Your task to perform on an android device: clear all cookies in the chrome app Image 0: 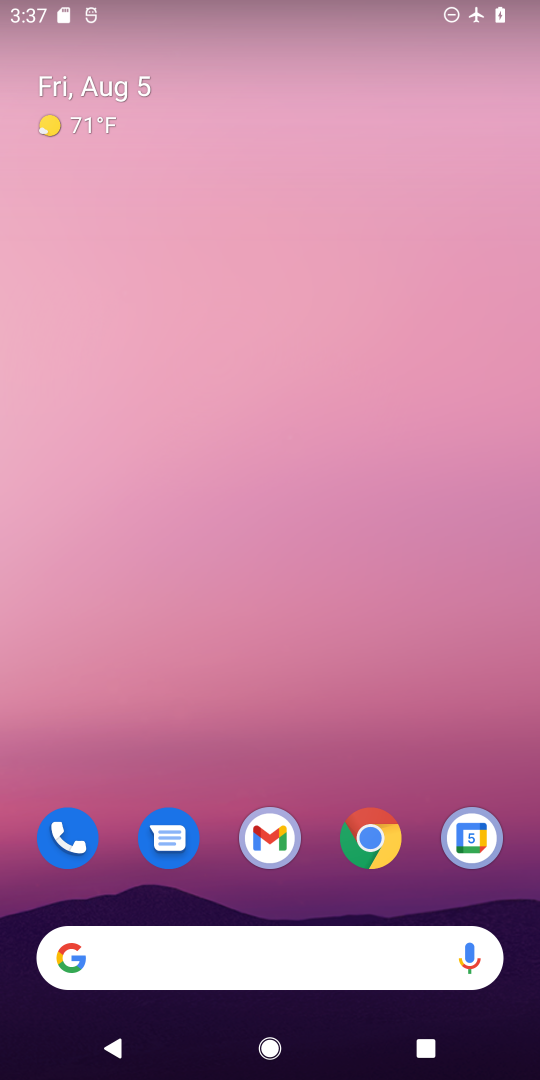
Step 0: click (380, 827)
Your task to perform on an android device: clear all cookies in the chrome app Image 1: 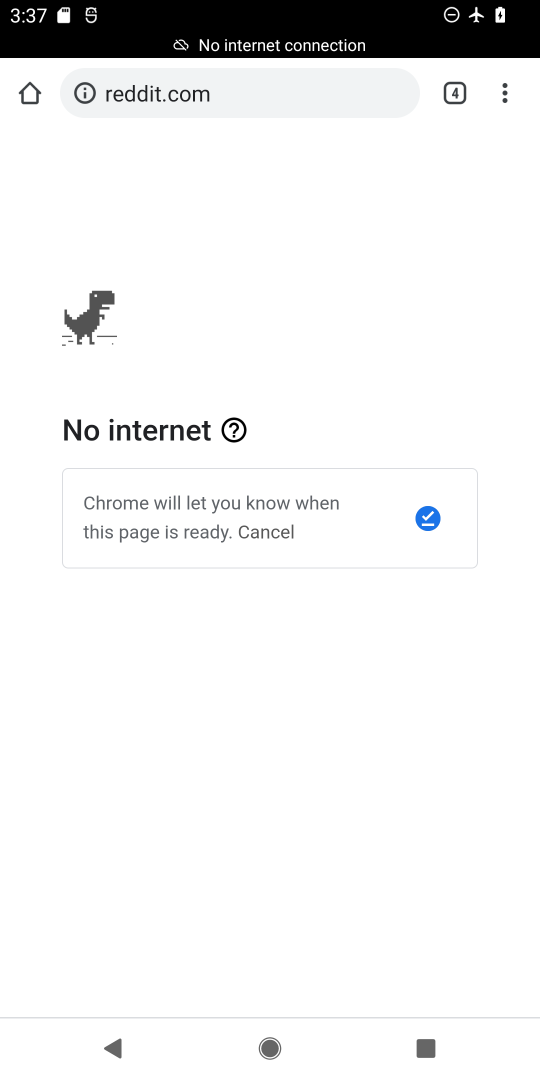
Step 1: click (515, 92)
Your task to perform on an android device: clear all cookies in the chrome app Image 2: 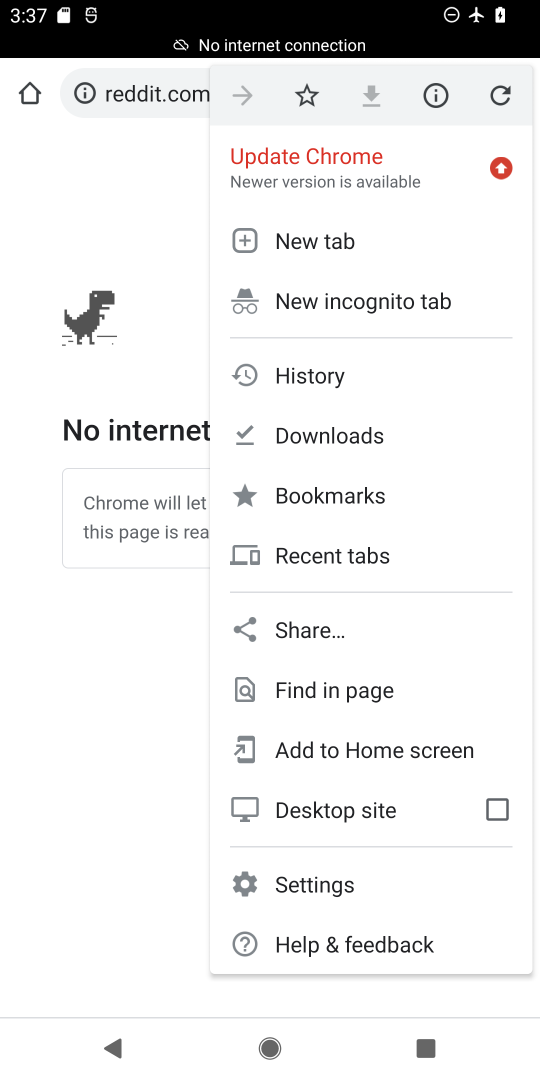
Step 2: click (340, 365)
Your task to perform on an android device: clear all cookies in the chrome app Image 3: 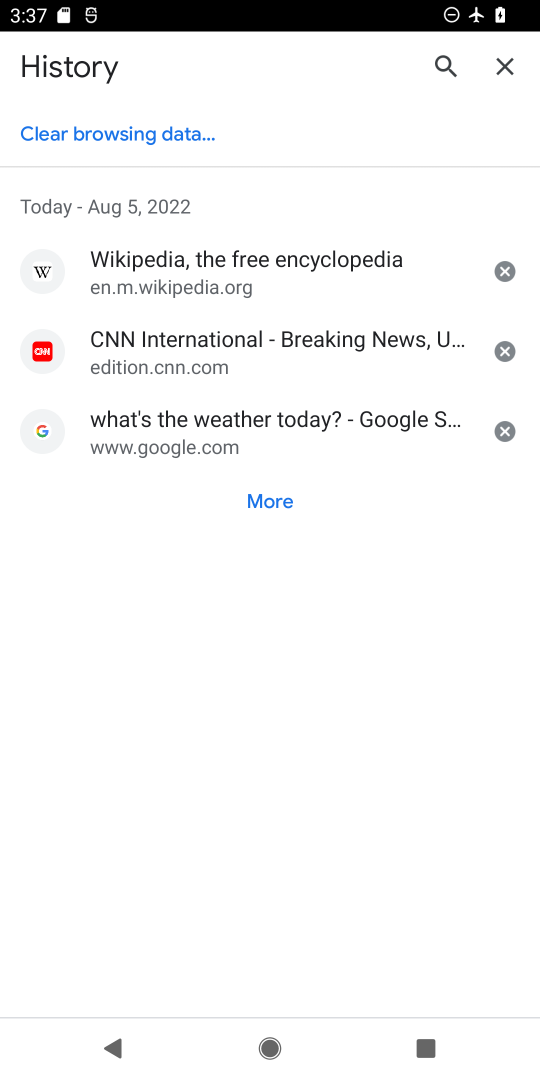
Step 3: click (118, 140)
Your task to perform on an android device: clear all cookies in the chrome app Image 4: 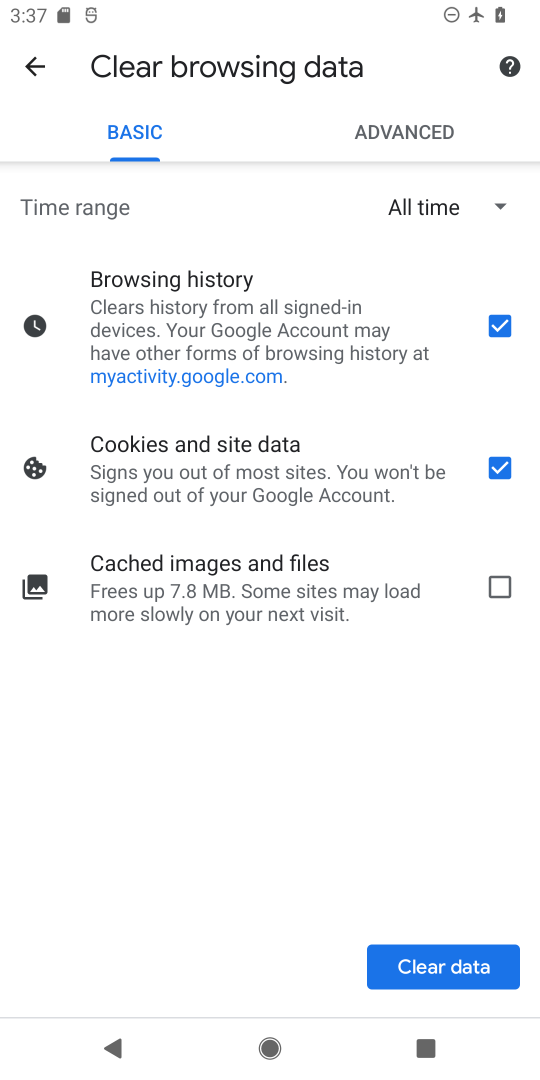
Step 4: click (502, 312)
Your task to perform on an android device: clear all cookies in the chrome app Image 5: 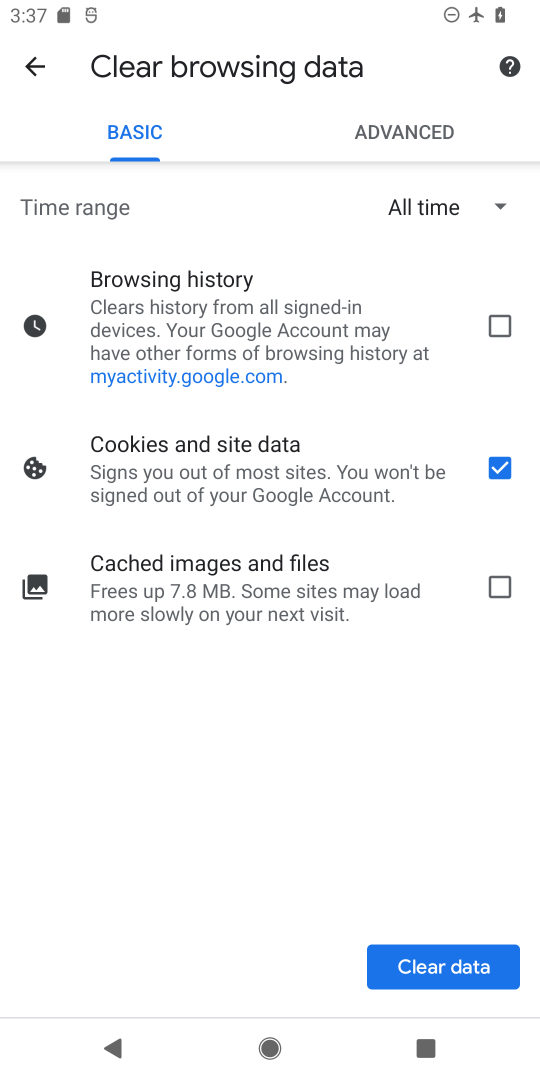
Step 5: click (455, 947)
Your task to perform on an android device: clear all cookies in the chrome app Image 6: 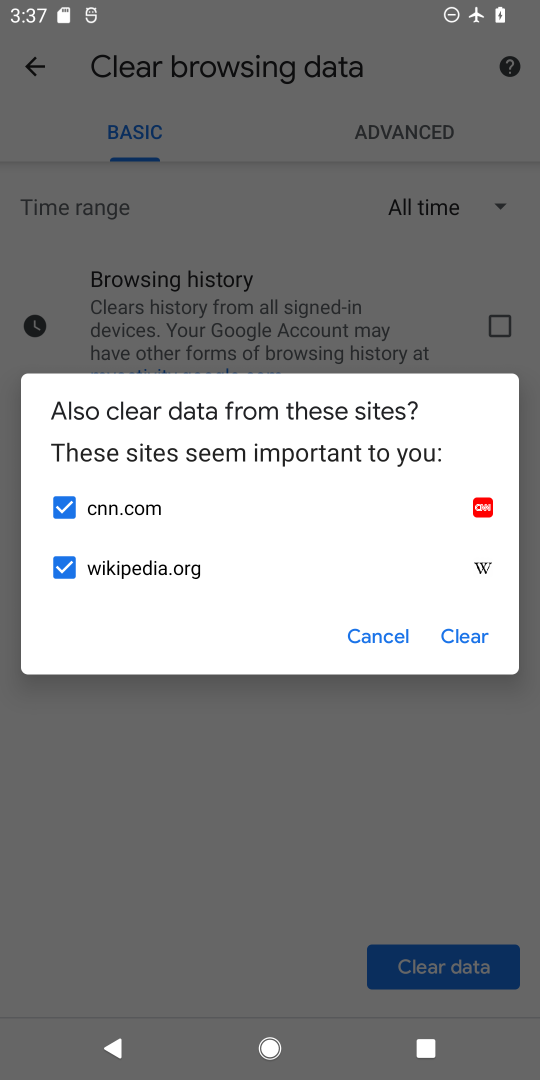
Step 6: click (480, 631)
Your task to perform on an android device: clear all cookies in the chrome app Image 7: 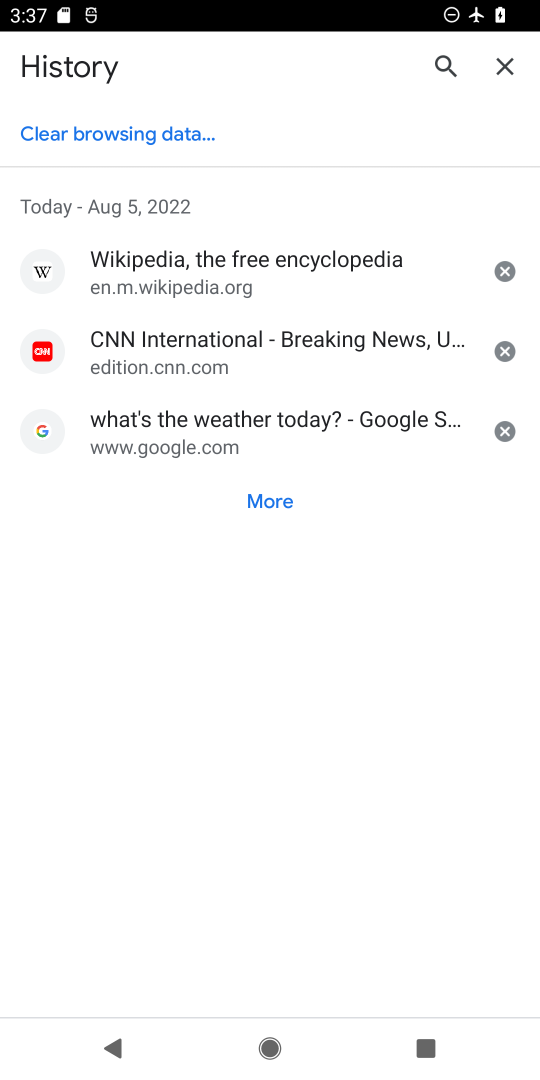
Step 7: task complete